Your task to perform on an android device: Open Chrome and go to the settings page Image 0: 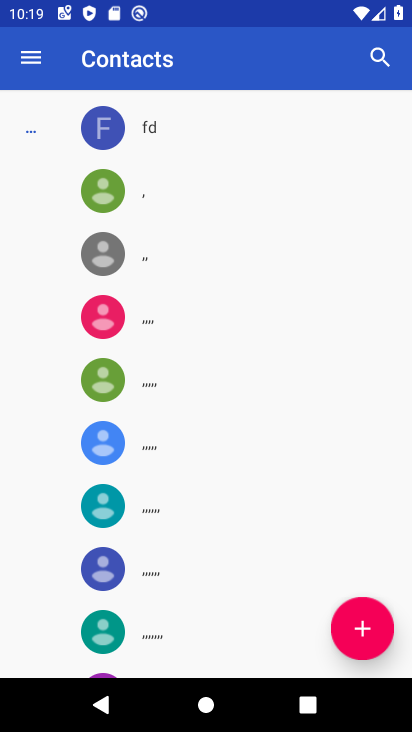
Step 0: press home button
Your task to perform on an android device: Open Chrome and go to the settings page Image 1: 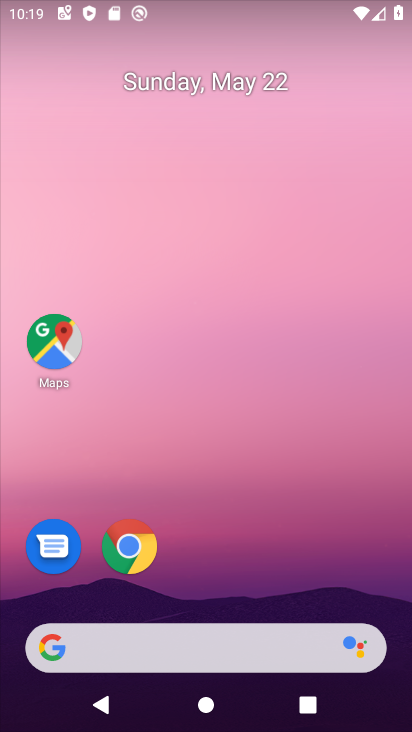
Step 1: click (138, 551)
Your task to perform on an android device: Open Chrome and go to the settings page Image 2: 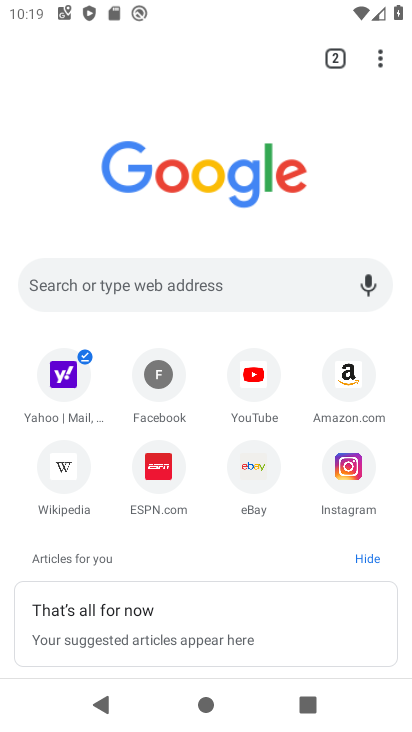
Step 2: click (379, 68)
Your task to perform on an android device: Open Chrome and go to the settings page Image 3: 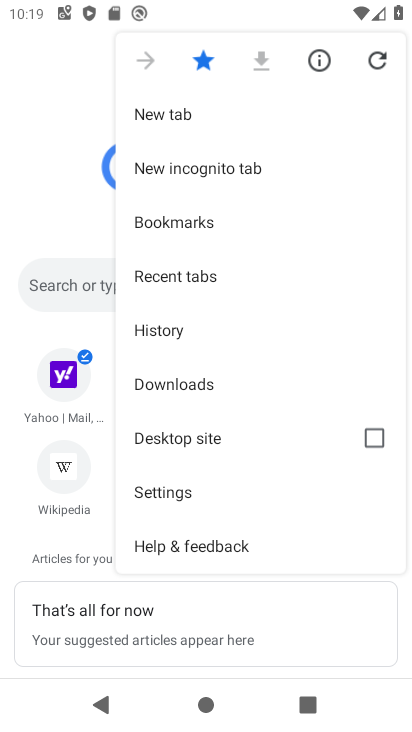
Step 3: click (178, 494)
Your task to perform on an android device: Open Chrome and go to the settings page Image 4: 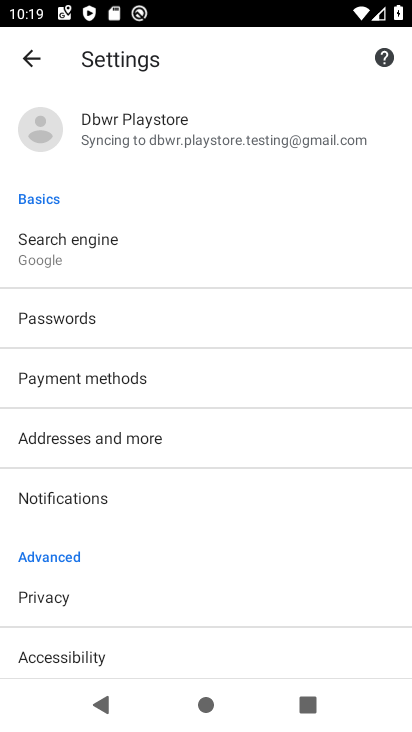
Step 4: task complete